Your task to perform on an android device: check the backup settings in the google photos Image 0: 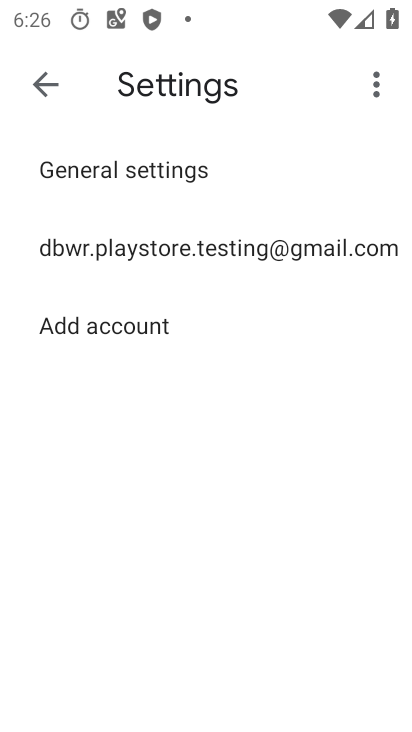
Step 0: press home button
Your task to perform on an android device: check the backup settings in the google photos Image 1: 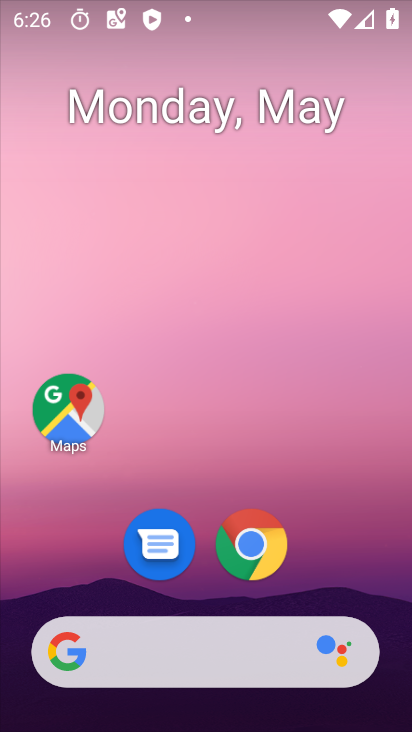
Step 1: drag from (351, 567) to (132, 6)
Your task to perform on an android device: check the backup settings in the google photos Image 2: 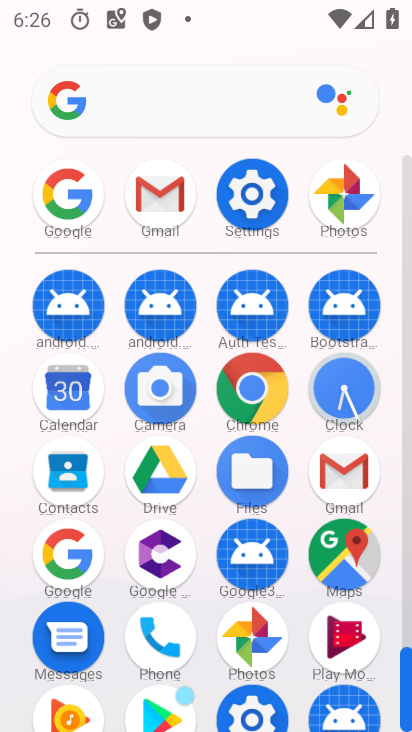
Step 2: click (248, 627)
Your task to perform on an android device: check the backup settings in the google photos Image 3: 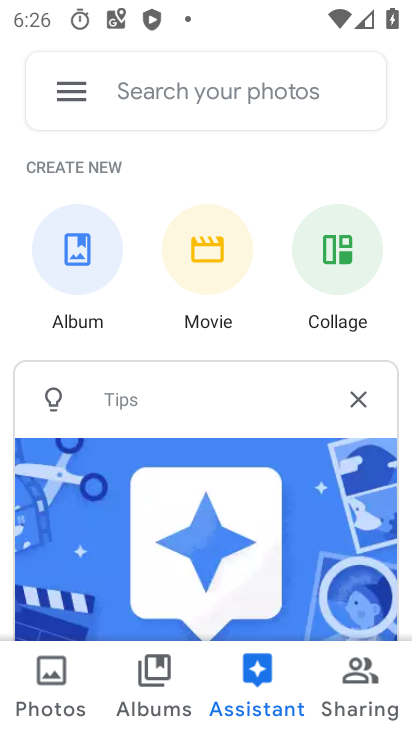
Step 3: click (69, 84)
Your task to perform on an android device: check the backup settings in the google photos Image 4: 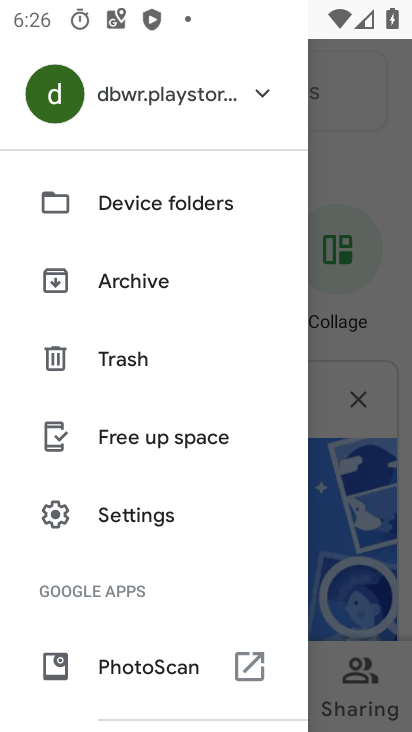
Step 4: click (163, 524)
Your task to perform on an android device: check the backup settings in the google photos Image 5: 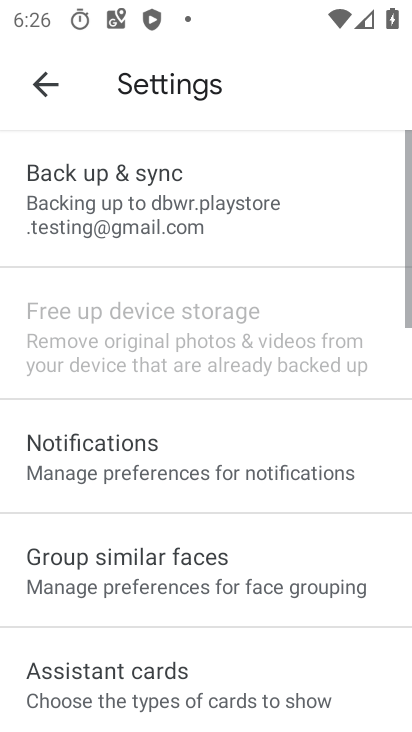
Step 5: click (119, 193)
Your task to perform on an android device: check the backup settings in the google photos Image 6: 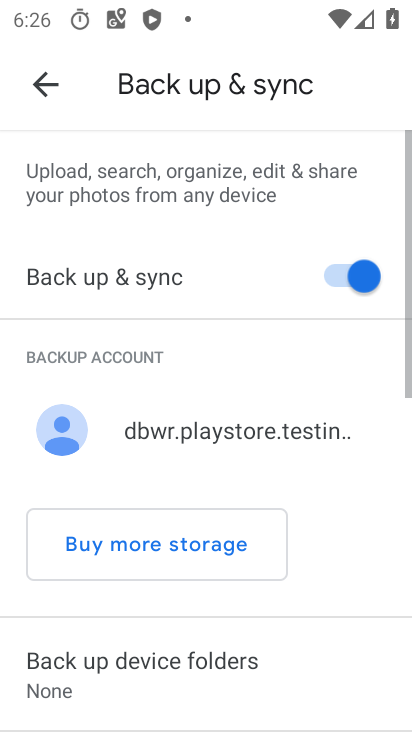
Step 6: task complete